Your task to perform on an android device: find snoozed emails in the gmail app Image 0: 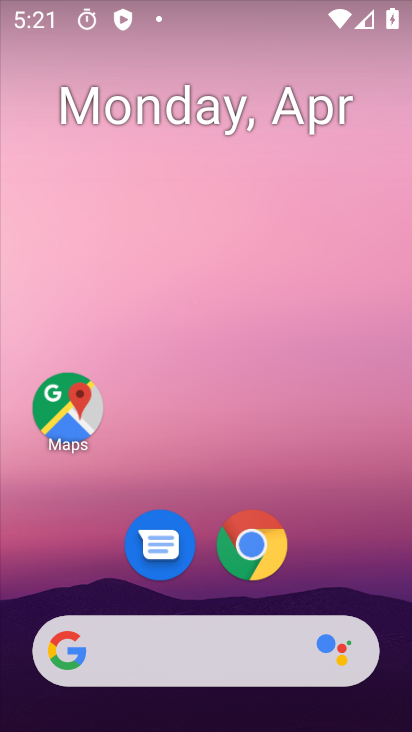
Step 0: drag from (340, 563) to (353, 128)
Your task to perform on an android device: find snoozed emails in the gmail app Image 1: 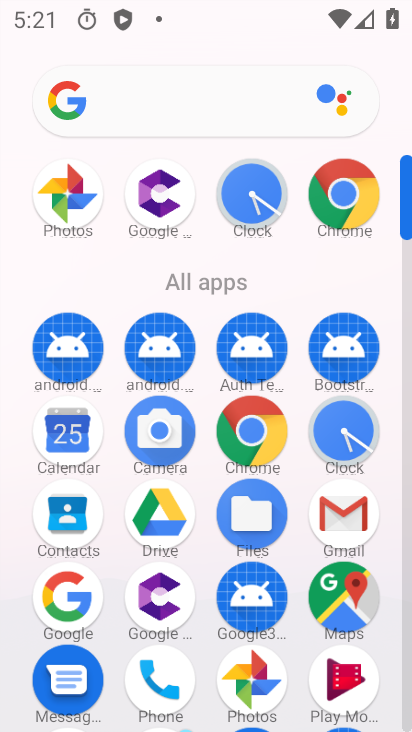
Step 1: click (340, 512)
Your task to perform on an android device: find snoozed emails in the gmail app Image 2: 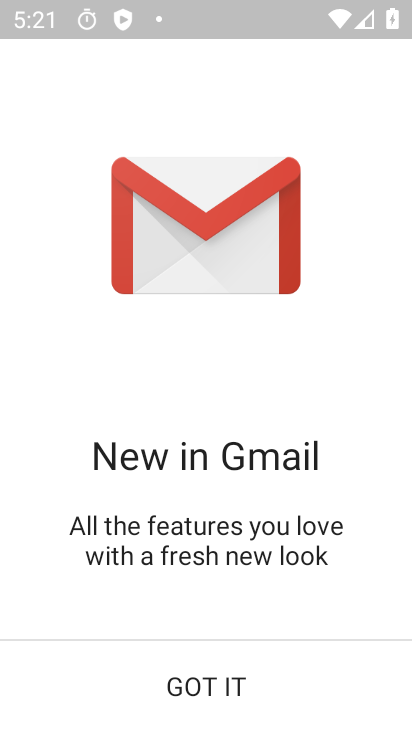
Step 2: click (217, 693)
Your task to perform on an android device: find snoozed emails in the gmail app Image 3: 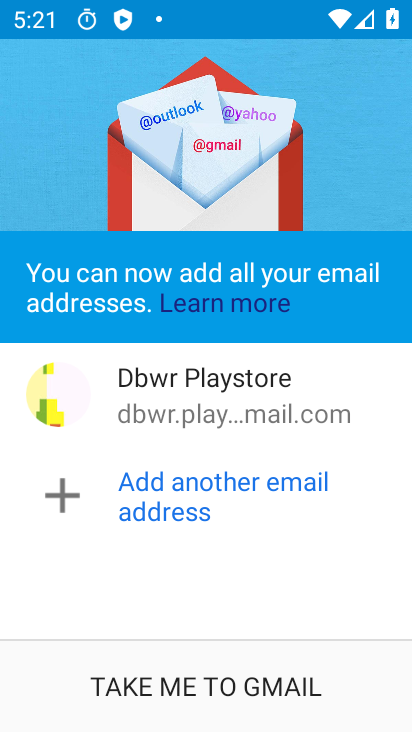
Step 3: click (306, 681)
Your task to perform on an android device: find snoozed emails in the gmail app Image 4: 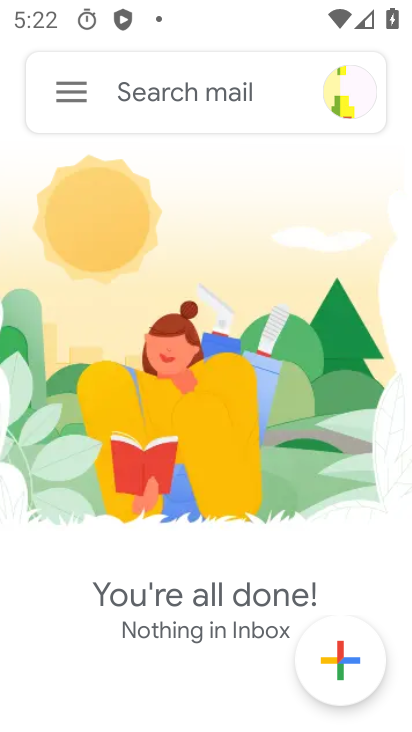
Step 4: click (68, 85)
Your task to perform on an android device: find snoozed emails in the gmail app Image 5: 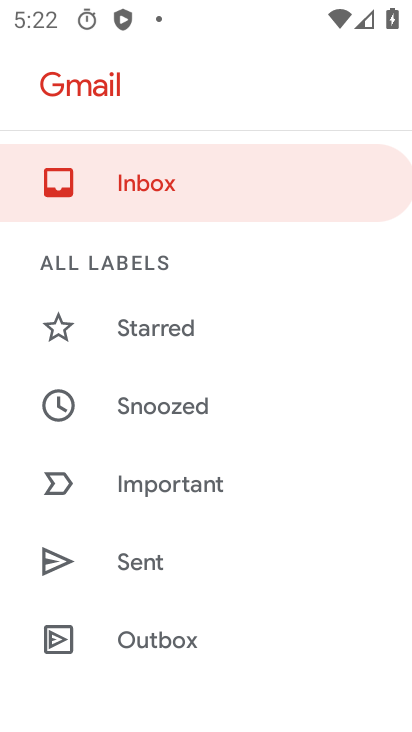
Step 5: click (170, 395)
Your task to perform on an android device: find snoozed emails in the gmail app Image 6: 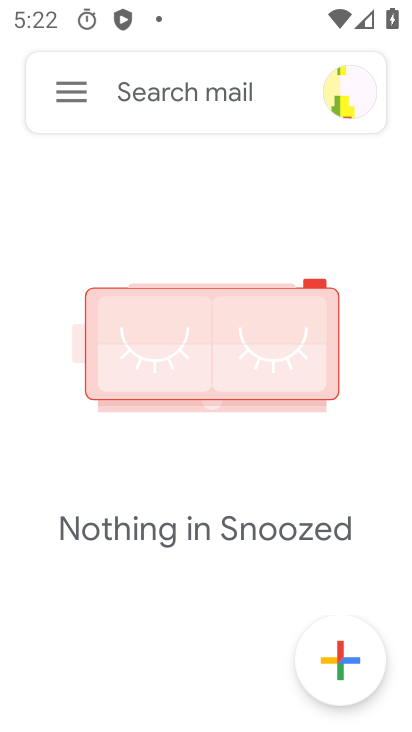
Step 6: task complete